Your task to perform on an android device: Open Chrome and go to settings Image 0: 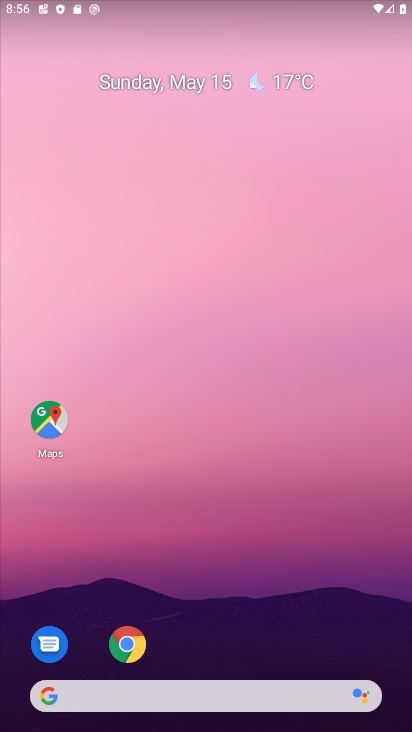
Step 0: drag from (218, 716) to (237, 330)
Your task to perform on an android device: Open Chrome and go to settings Image 1: 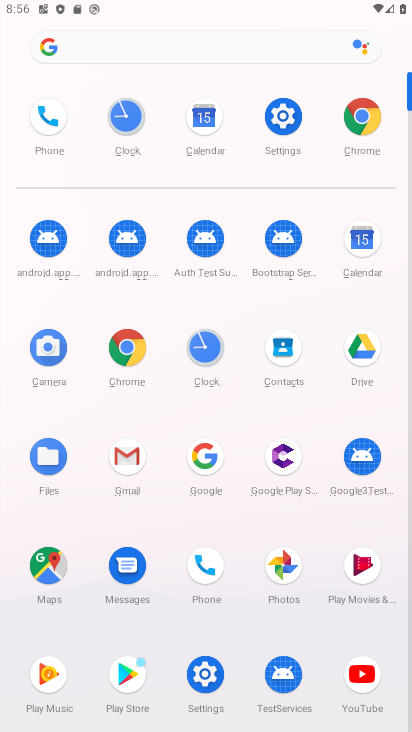
Step 1: click (200, 679)
Your task to perform on an android device: Open Chrome and go to settings Image 2: 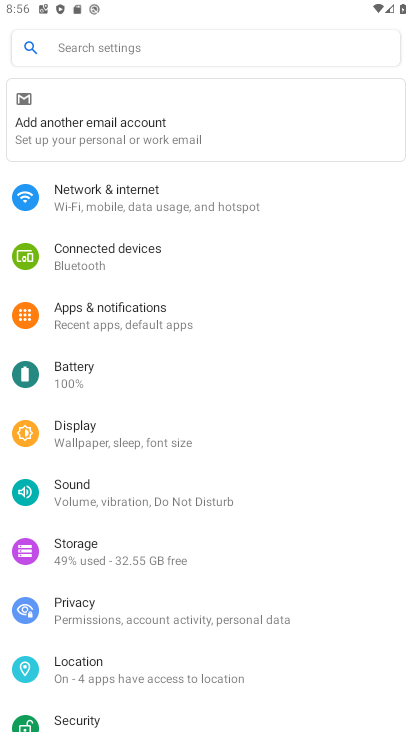
Step 2: press home button
Your task to perform on an android device: Open Chrome and go to settings Image 3: 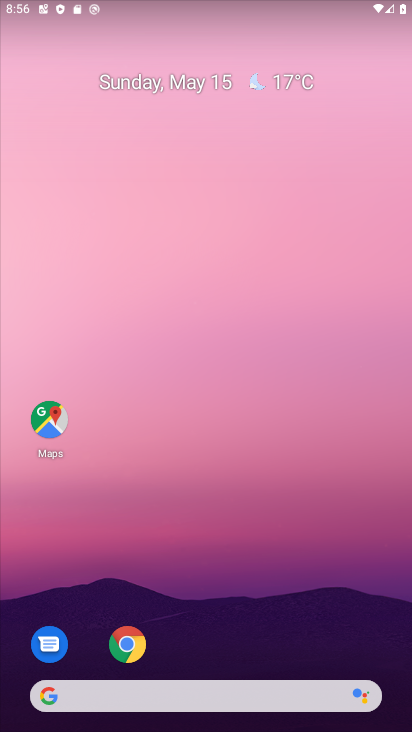
Step 3: drag from (256, 679) to (311, 261)
Your task to perform on an android device: Open Chrome and go to settings Image 4: 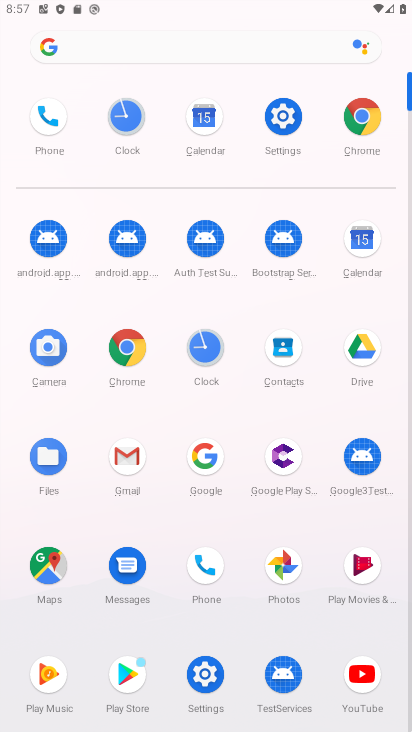
Step 4: click (344, 118)
Your task to perform on an android device: Open Chrome and go to settings Image 5: 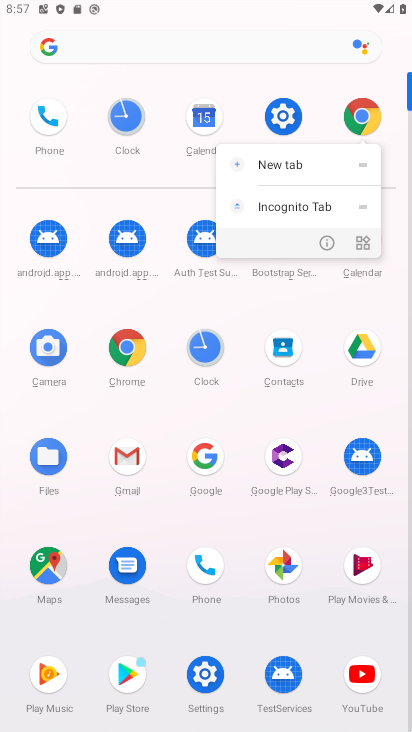
Step 5: click (371, 106)
Your task to perform on an android device: Open Chrome and go to settings Image 6: 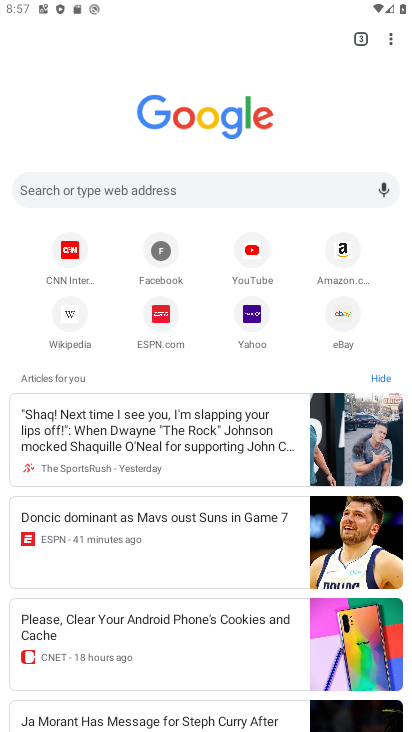
Step 6: click (383, 44)
Your task to perform on an android device: Open Chrome and go to settings Image 7: 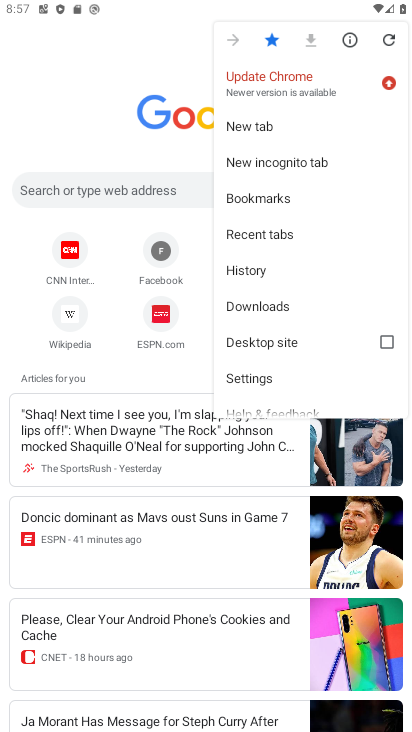
Step 7: click (259, 372)
Your task to perform on an android device: Open Chrome and go to settings Image 8: 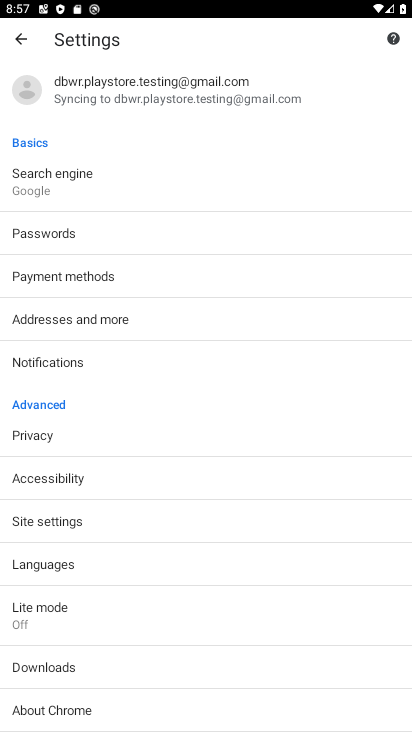
Step 8: task complete